Your task to perform on an android device: turn off picture-in-picture Image 0: 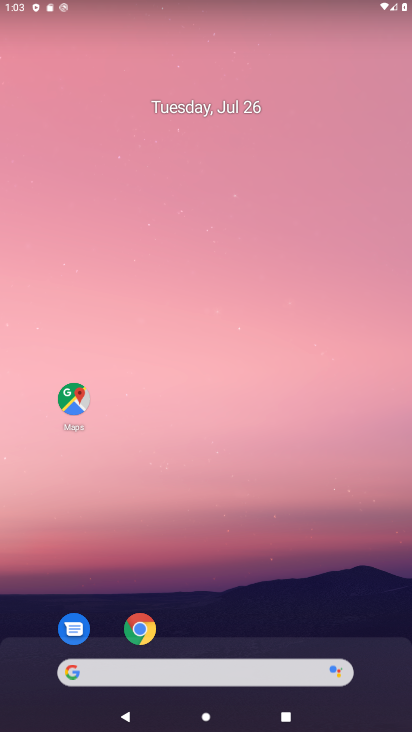
Step 0: drag from (193, 686) to (208, 27)
Your task to perform on an android device: turn off picture-in-picture Image 1: 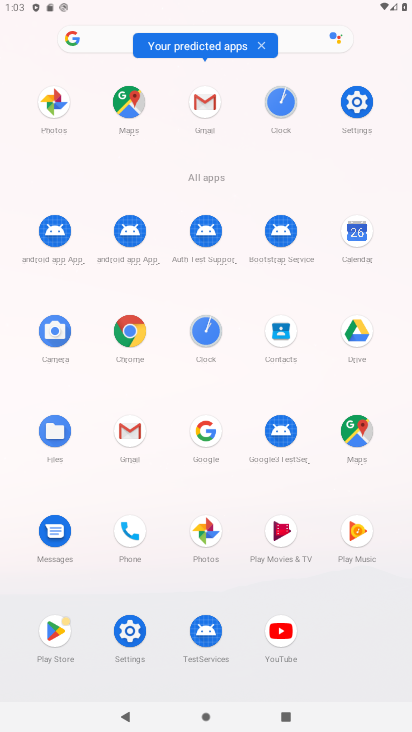
Step 1: click (359, 112)
Your task to perform on an android device: turn off picture-in-picture Image 2: 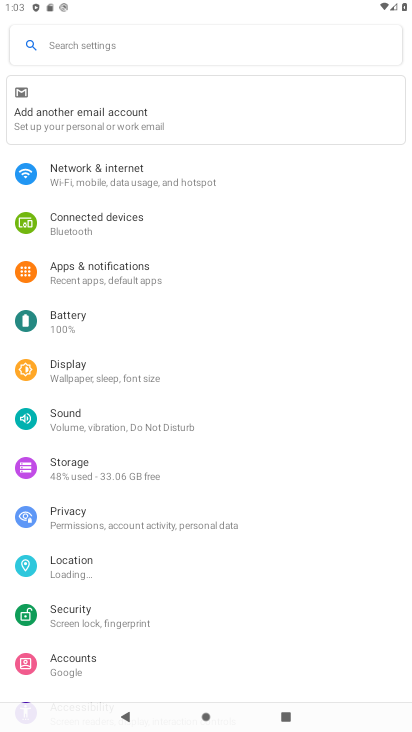
Step 2: click (129, 270)
Your task to perform on an android device: turn off picture-in-picture Image 3: 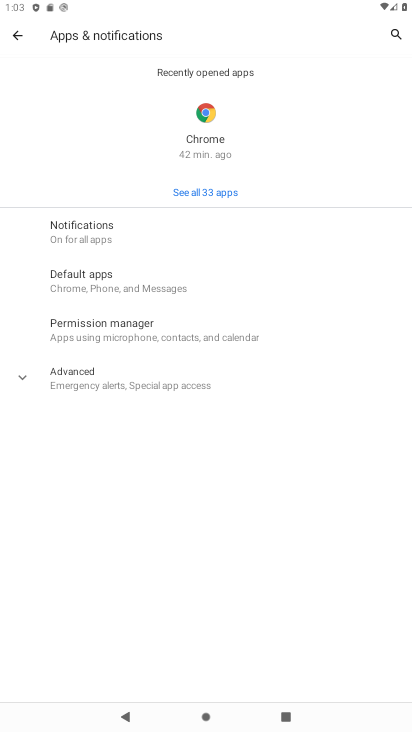
Step 3: click (82, 380)
Your task to perform on an android device: turn off picture-in-picture Image 4: 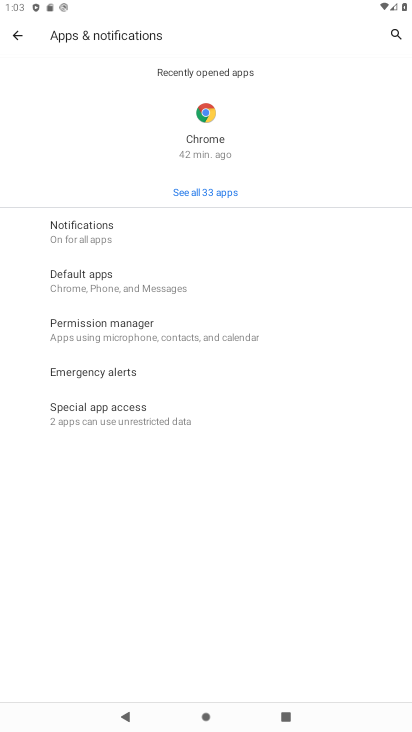
Step 4: click (112, 421)
Your task to perform on an android device: turn off picture-in-picture Image 5: 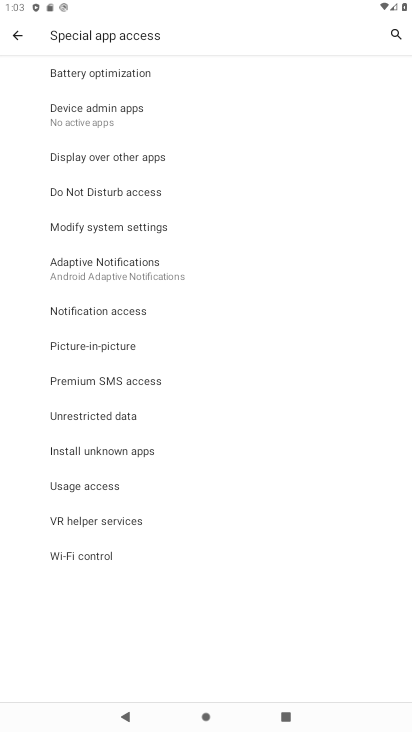
Step 5: click (92, 350)
Your task to perform on an android device: turn off picture-in-picture Image 6: 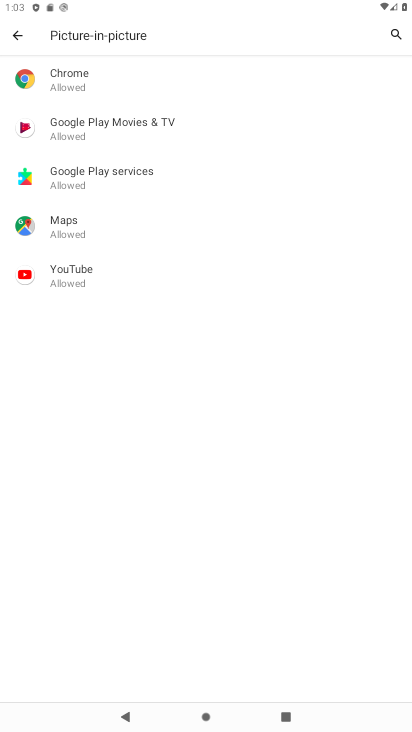
Step 6: click (126, 74)
Your task to perform on an android device: turn off picture-in-picture Image 7: 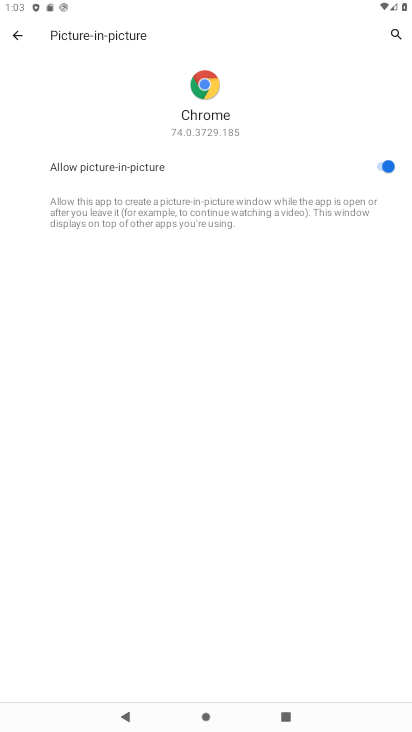
Step 7: click (390, 166)
Your task to perform on an android device: turn off picture-in-picture Image 8: 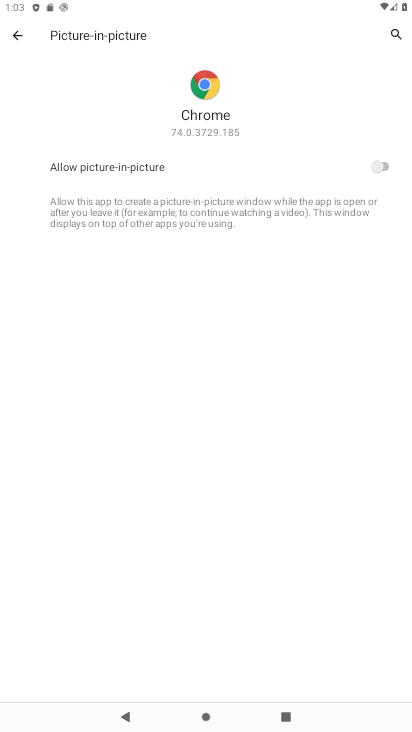
Step 8: press back button
Your task to perform on an android device: turn off picture-in-picture Image 9: 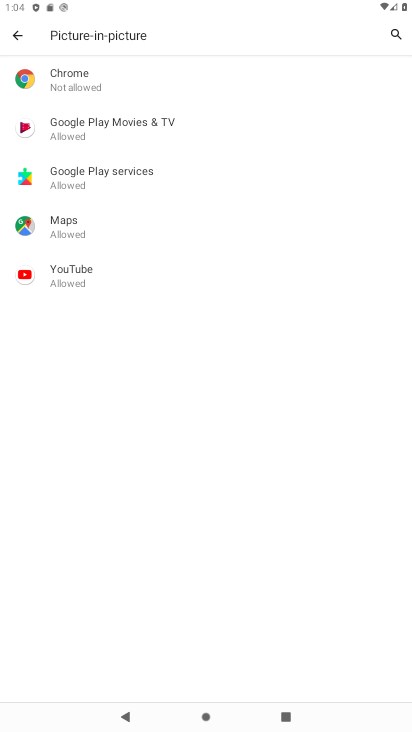
Step 9: click (183, 124)
Your task to perform on an android device: turn off picture-in-picture Image 10: 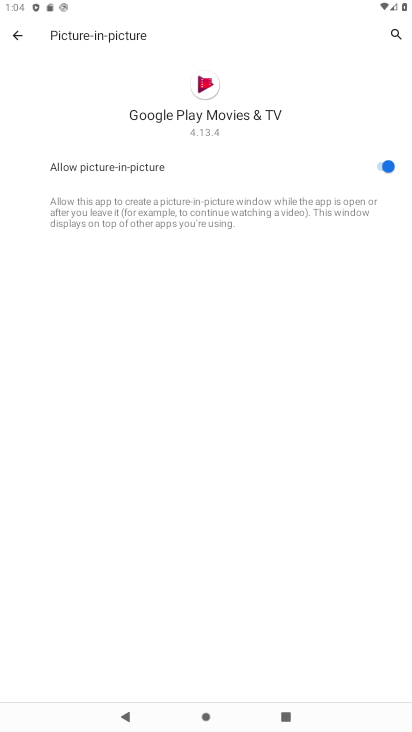
Step 10: click (382, 167)
Your task to perform on an android device: turn off picture-in-picture Image 11: 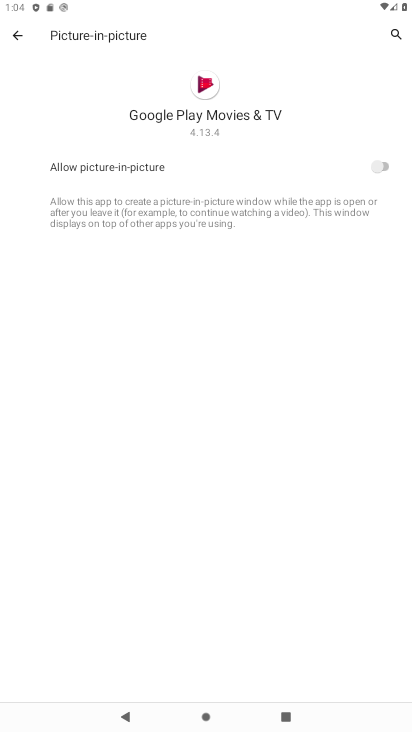
Step 11: press back button
Your task to perform on an android device: turn off picture-in-picture Image 12: 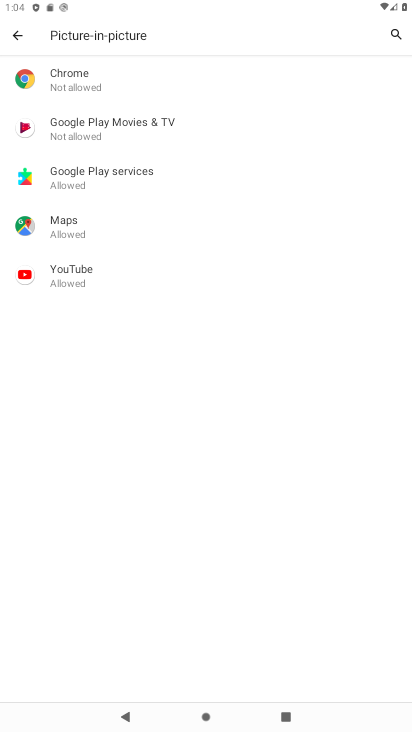
Step 12: click (252, 192)
Your task to perform on an android device: turn off picture-in-picture Image 13: 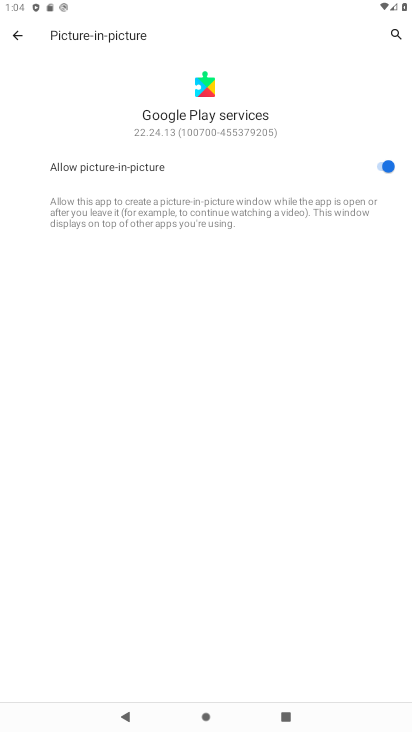
Step 13: click (382, 166)
Your task to perform on an android device: turn off picture-in-picture Image 14: 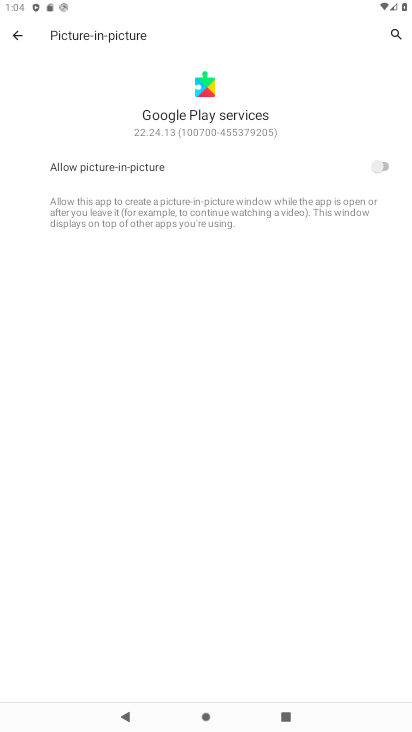
Step 14: press back button
Your task to perform on an android device: turn off picture-in-picture Image 15: 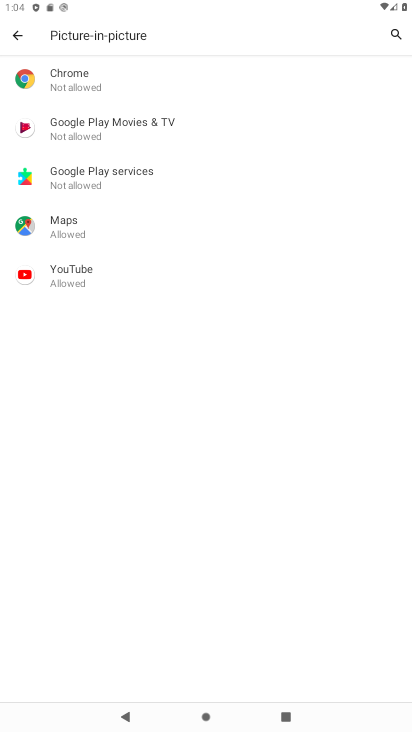
Step 15: click (169, 237)
Your task to perform on an android device: turn off picture-in-picture Image 16: 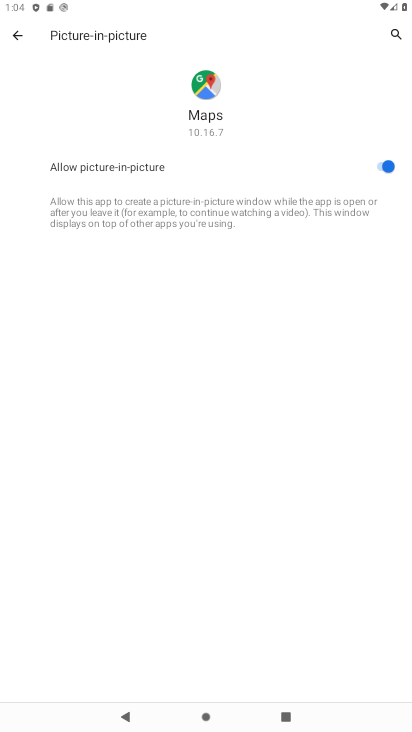
Step 16: click (388, 157)
Your task to perform on an android device: turn off picture-in-picture Image 17: 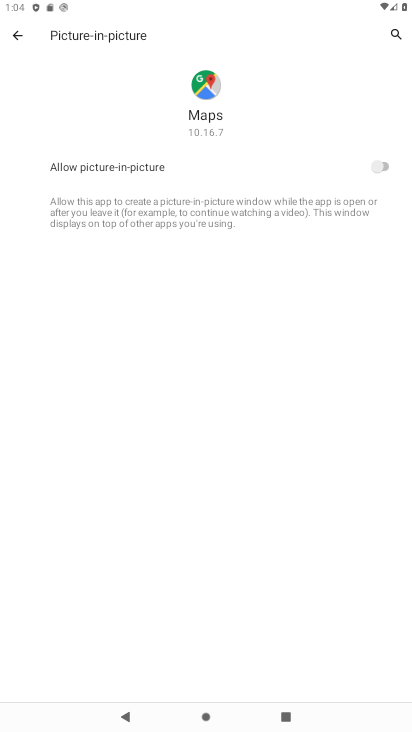
Step 17: press back button
Your task to perform on an android device: turn off picture-in-picture Image 18: 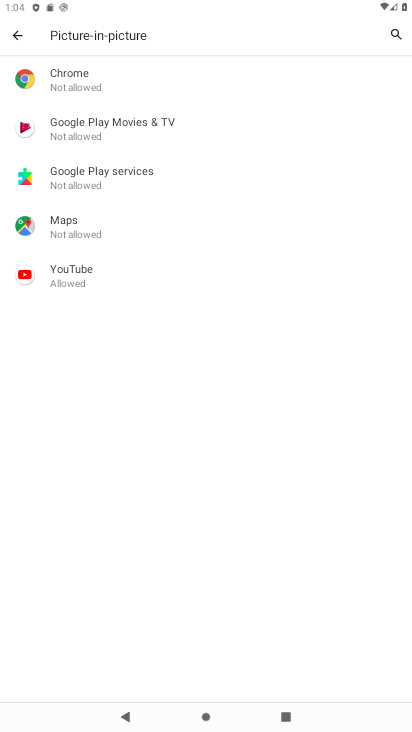
Step 18: click (91, 275)
Your task to perform on an android device: turn off picture-in-picture Image 19: 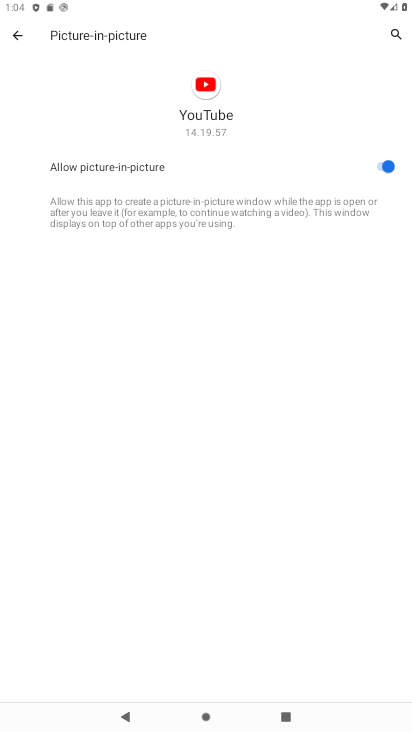
Step 19: click (391, 165)
Your task to perform on an android device: turn off picture-in-picture Image 20: 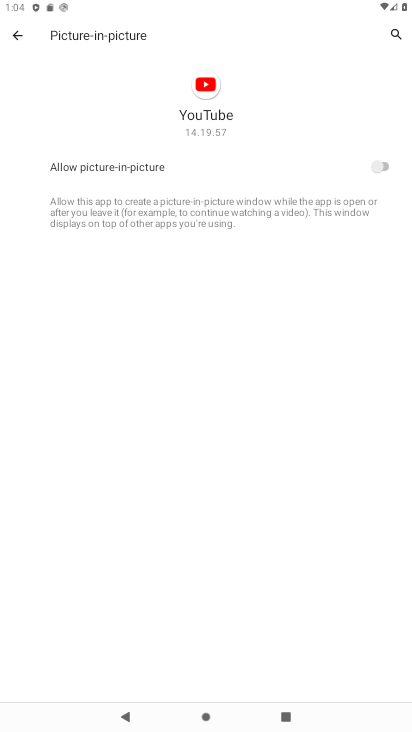
Step 20: task complete